Your task to perform on an android device: create a new album in the google photos Image 0: 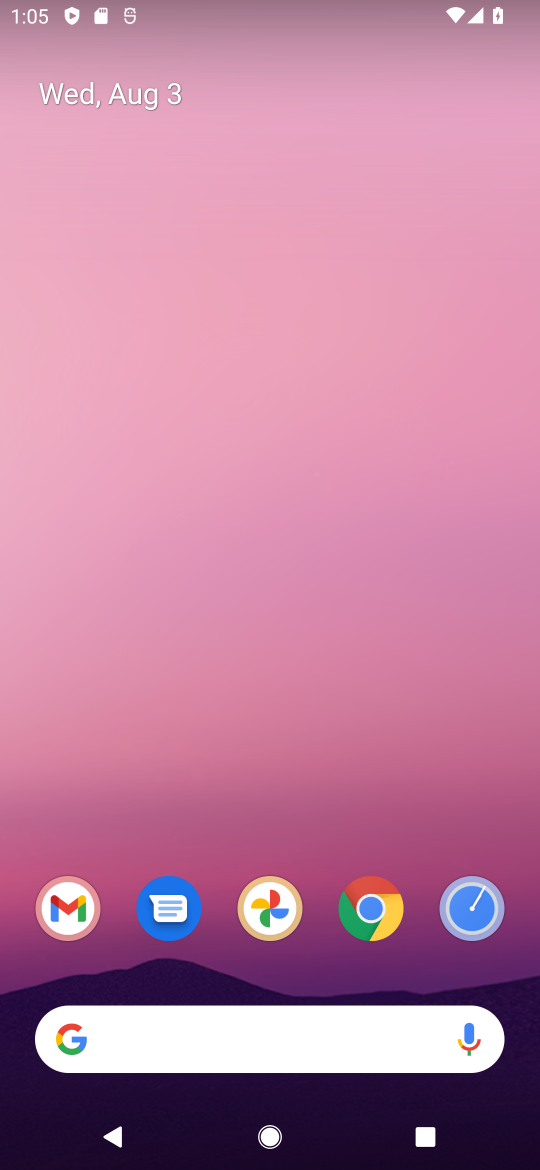
Step 0: click (272, 909)
Your task to perform on an android device: create a new album in the google photos Image 1: 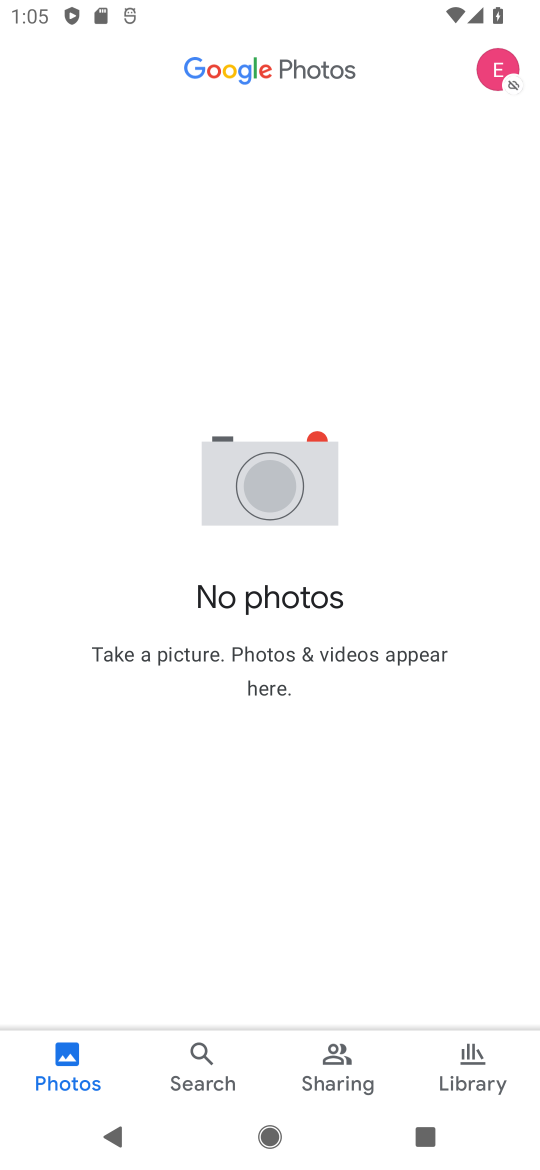
Step 1: click (483, 1052)
Your task to perform on an android device: create a new album in the google photos Image 2: 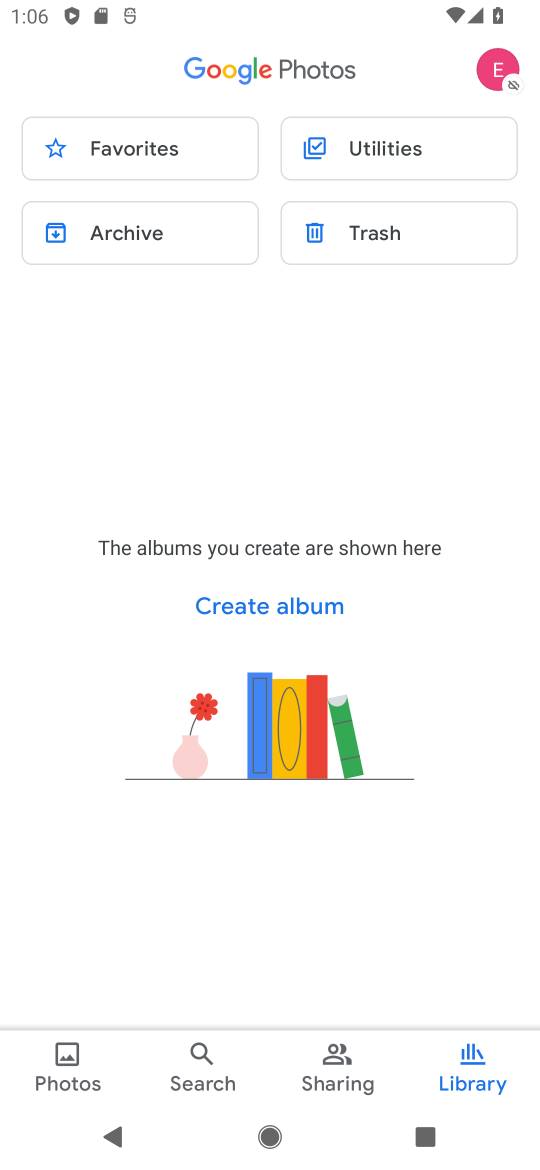
Step 2: click (254, 594)
Your task to perform on an android device: create a new album in the google photos Image 3: 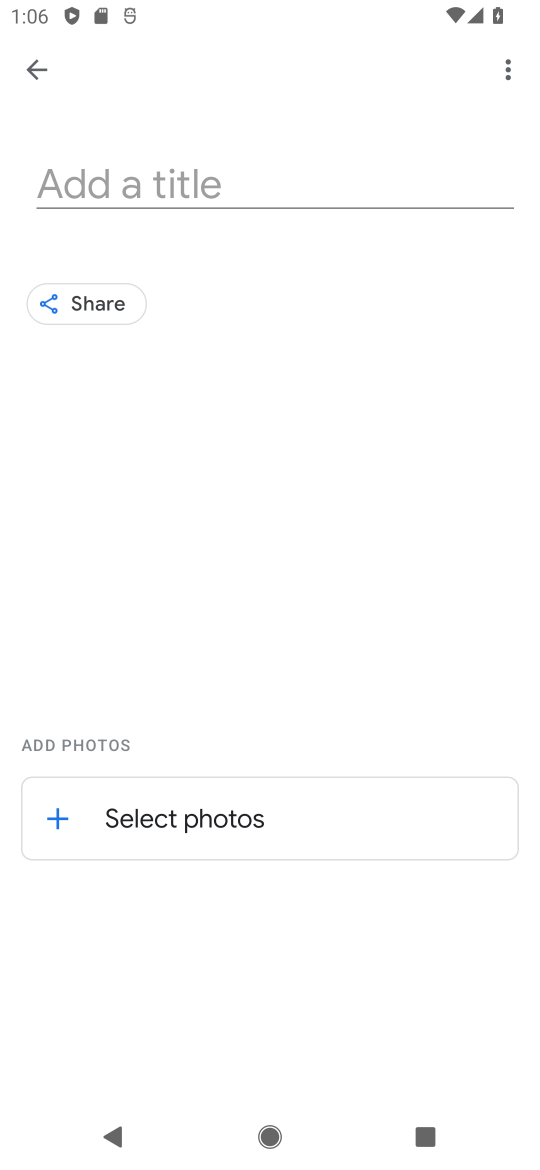
Step 3: click (187, 814)
Your task to perform on an android device: create a new album in the google photos Image 4: 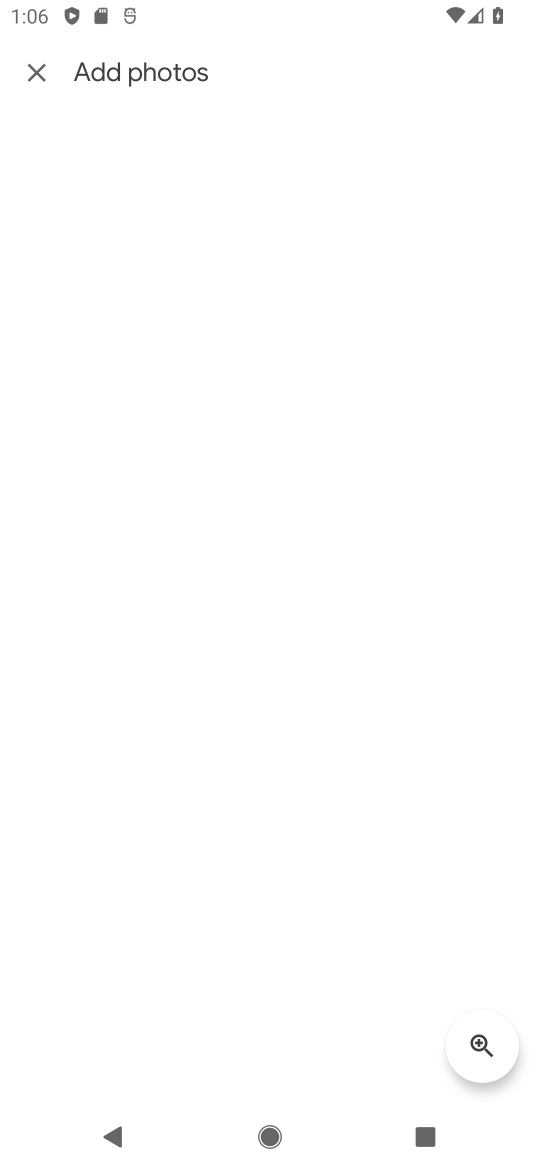
Step 4: task complete